Your task to perform on an android device: toggle improve location accuracy Image 0: 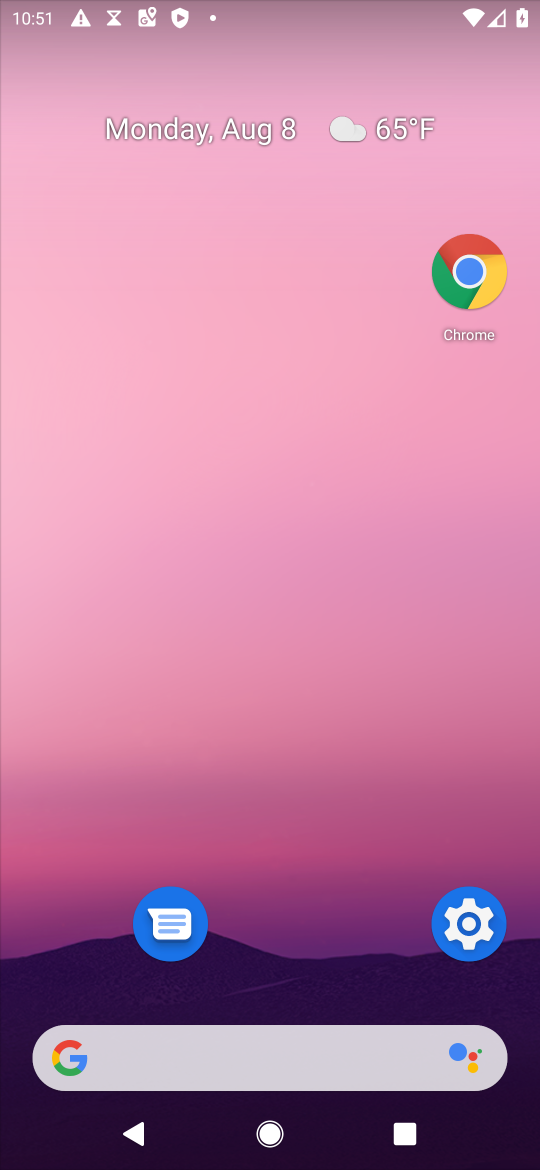
Step 0: drag from (273, 525) to (276, 204)
Your task to perform on an android device: toggle improve location accuracy Image 1: 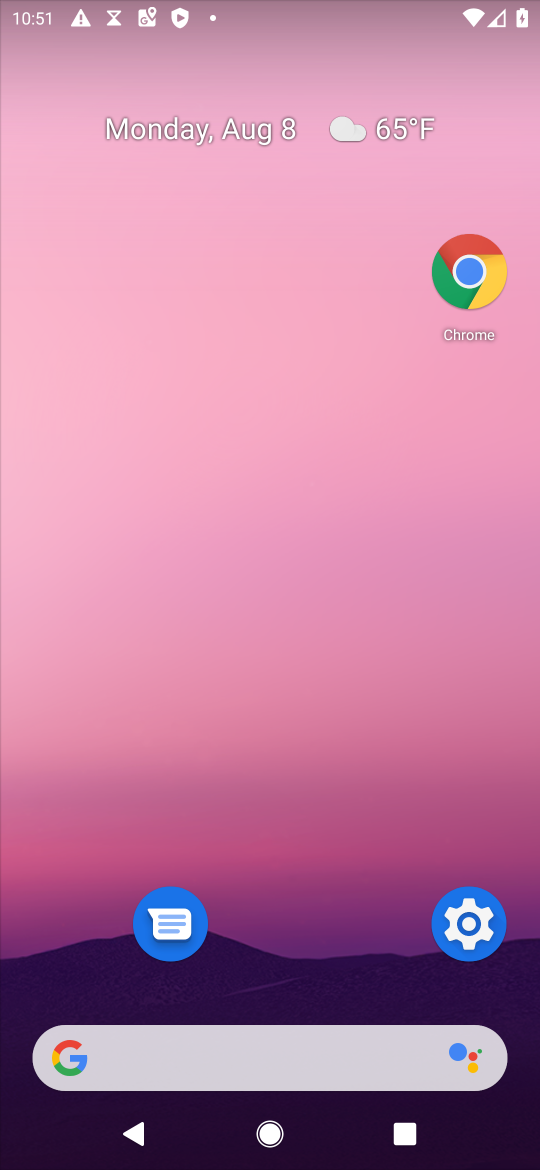
Step 1: click (477, 947)
Your task to perform on an android device: toggle improve location accuracy Image 2: 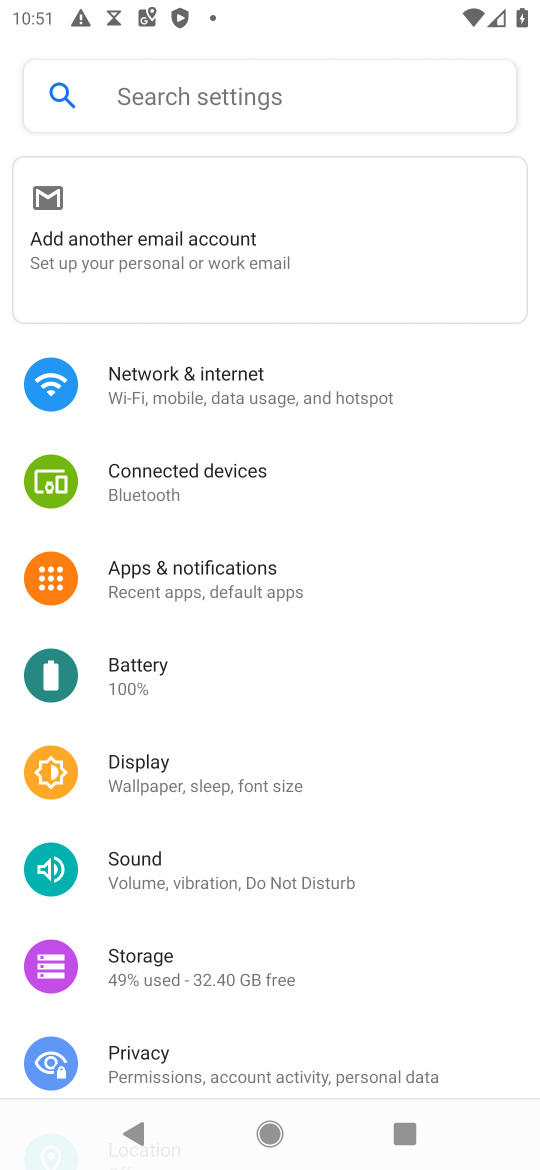
Step 2: drag from (245, 959) to (205, 474)
Your task to perform on an android device: toggle improve location accuracy Image 3: 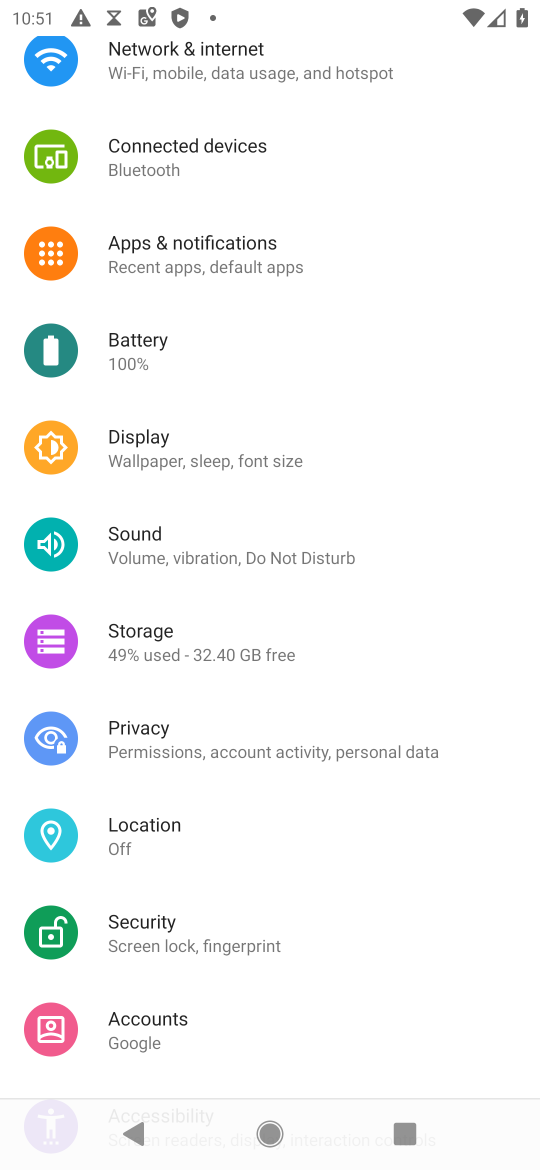
Step 3: click (188, 830)
Your task to perform on an android device: toggle improve location accuracy Image 4: 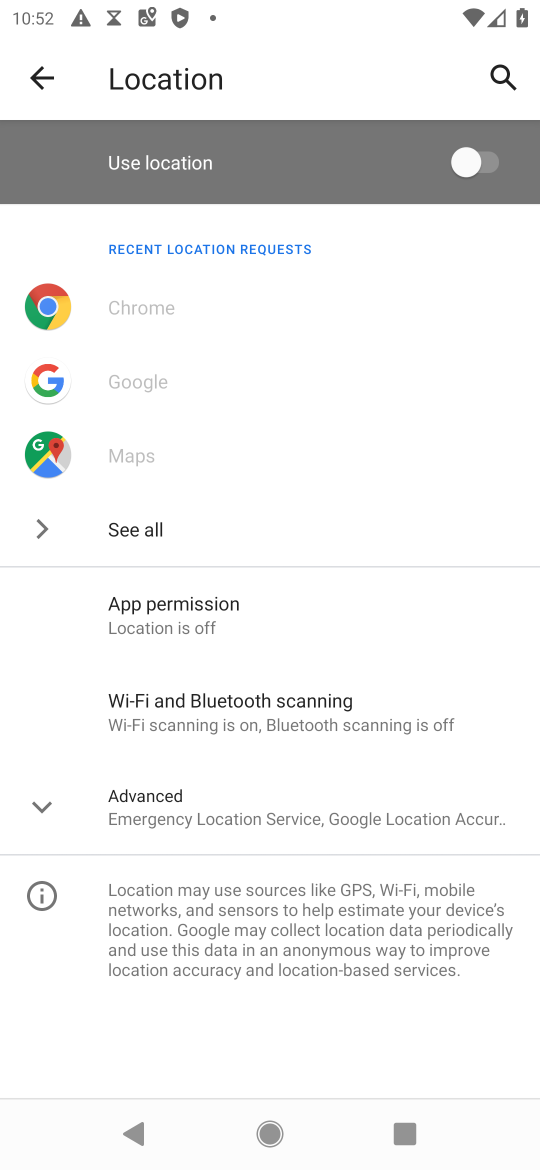
Step 4: click (222, 820)
Your task to perform on an android device: toggle improve location accuracy Image 5: 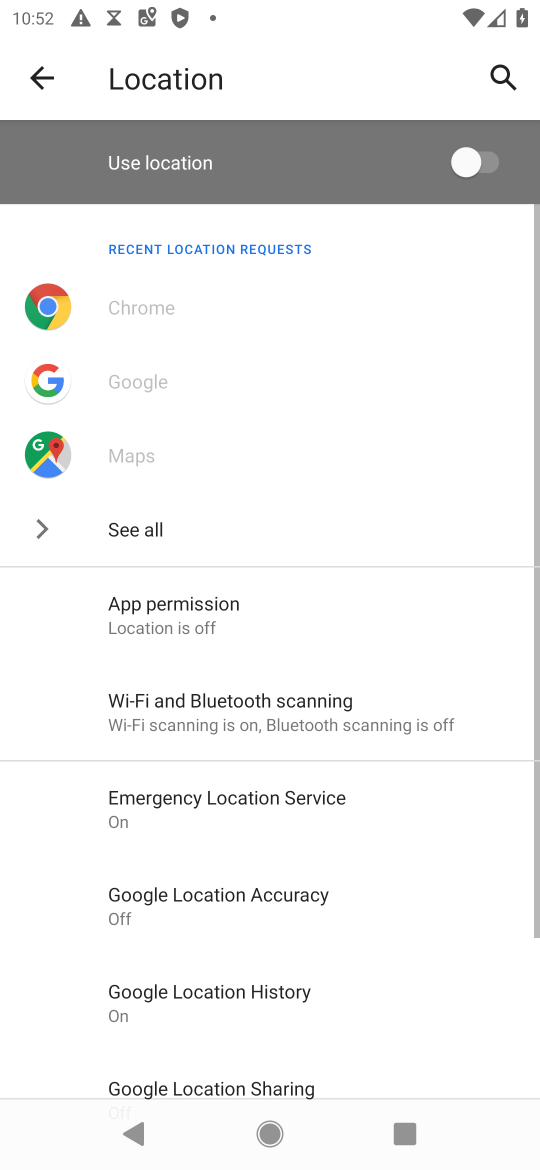
Step 5: click (240, 908)
Your task to perform on an android device: toggle improve location accuracy Image 6: 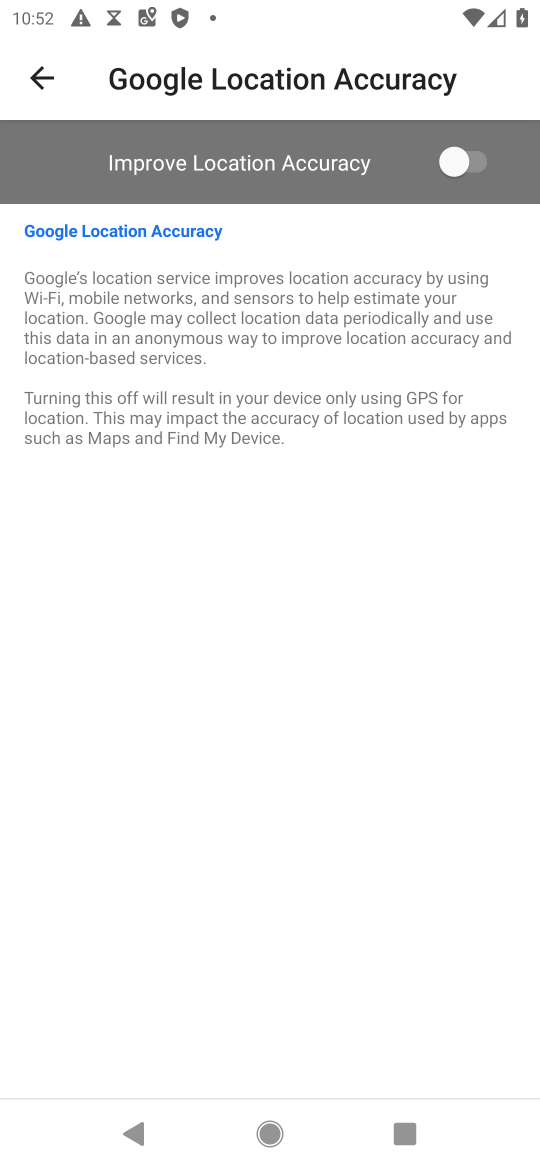
Step 6: click (316, 186)
Your task to perform on an android device: toggle improve location accuracy Image 7: 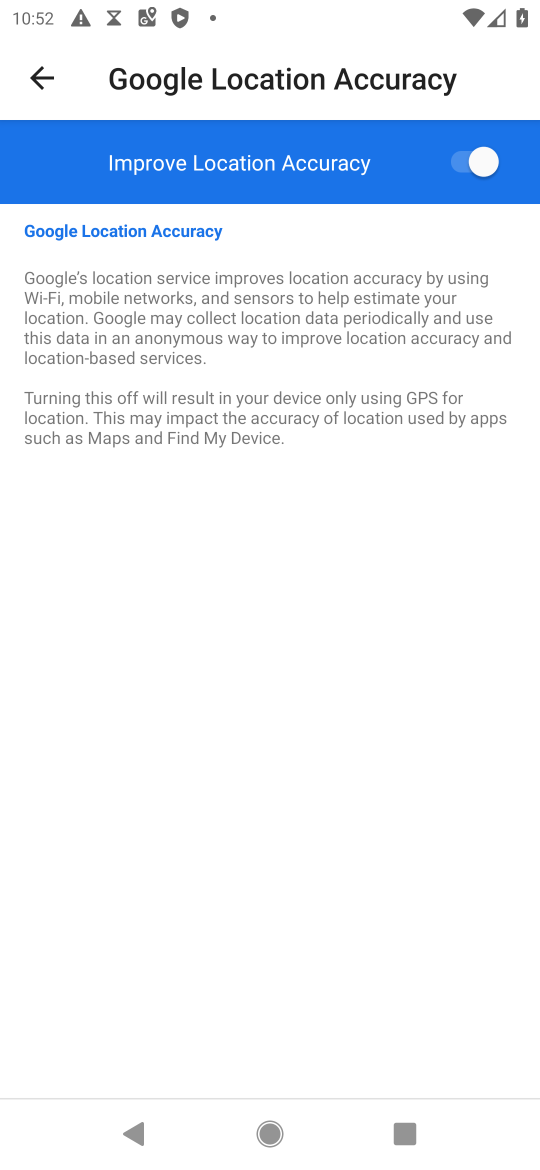
Step 7: task complete